Your task to perform on an android device: View the shopping cart on ebay. Search for apple airpods pro on ebay, select the first entry, add it to the cart, then select checkout. Image 0: 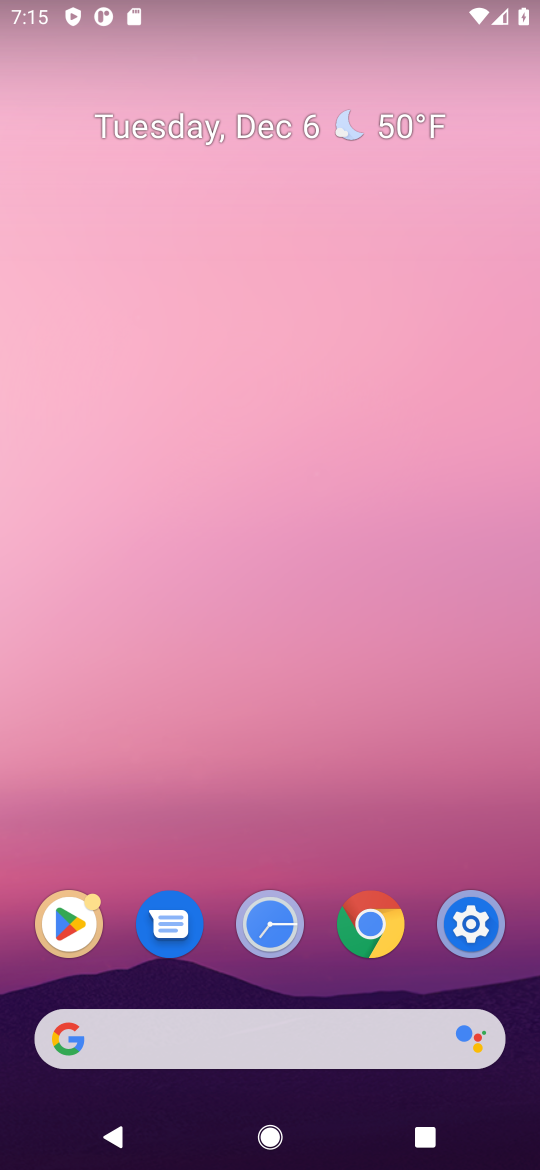
Step 0: click (288, 1057)
Your task to perform on an android device: View the shopping cart on ebay. Search for apple airpods pro on ebay, select the first entry, add it to the cart, then select checkout. Image 1: 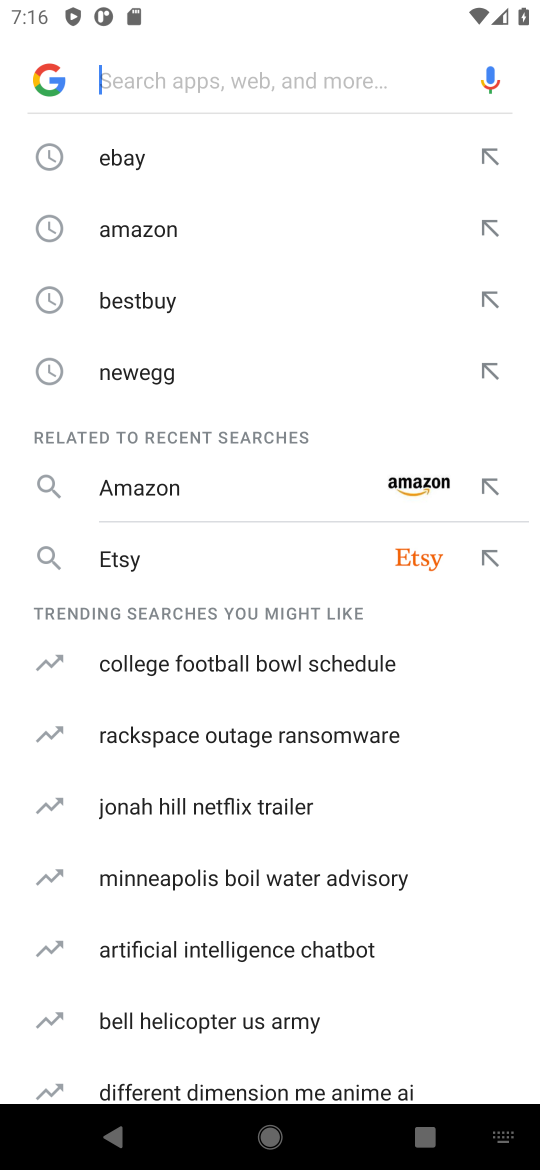
Step 1: type "apple pro"
Your task to perform on an android device: View the shopping cart on ebay. Search for apple airpods pro on ebay, select the first entry, add it to the cart, then select checkout. Image 2: 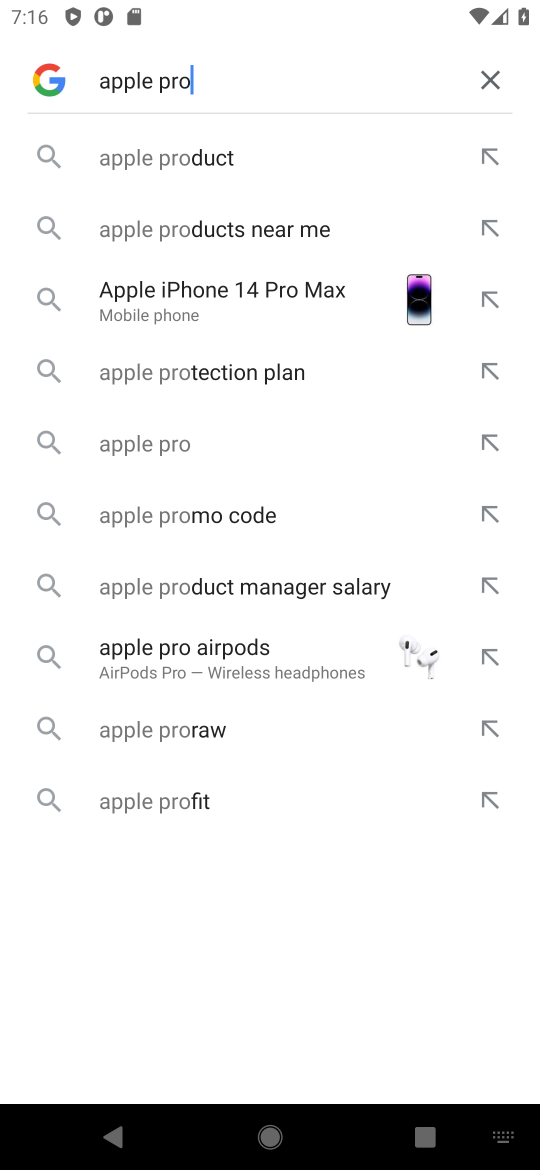
Step 2: task complete